Your task to perform on an android device: change the clock display to digital Image 0: 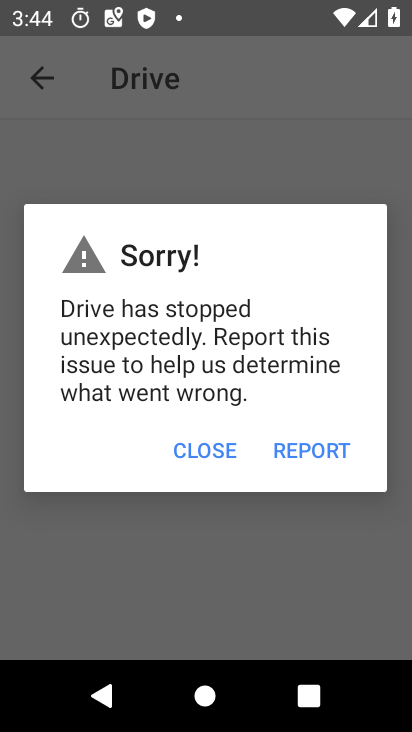
Step 0: press home button
Your task to perform on an android device: change the clock display to digital Image 1: 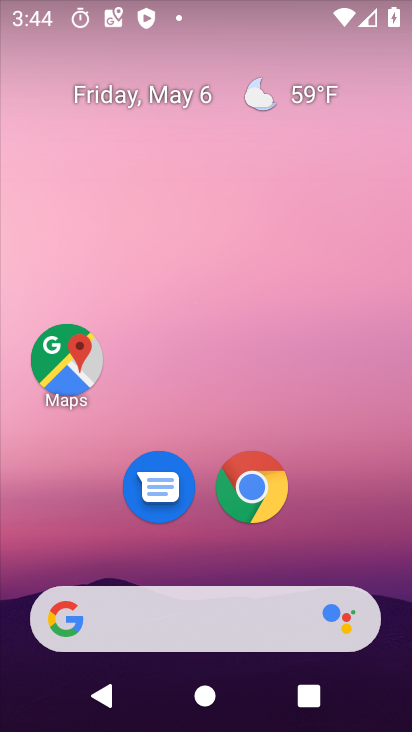
Step 1: drag from (315, 473) to (187, 16)
Your task to perform on an android device: change the clock display to digital Image 2: 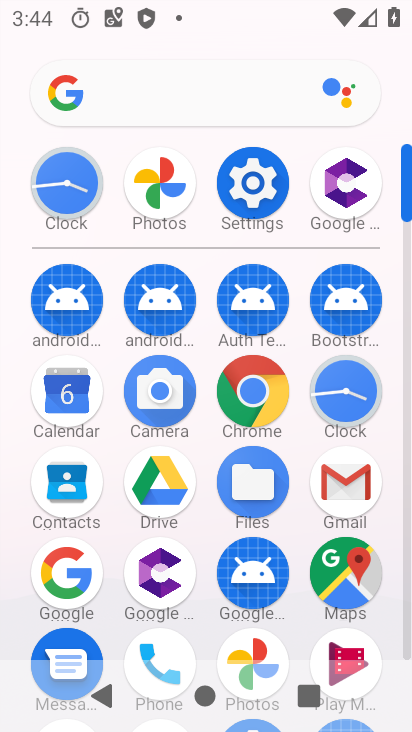
Step 2: click (341, 375)
Your task to perform on an android device: change the clock display to digital Image 3: 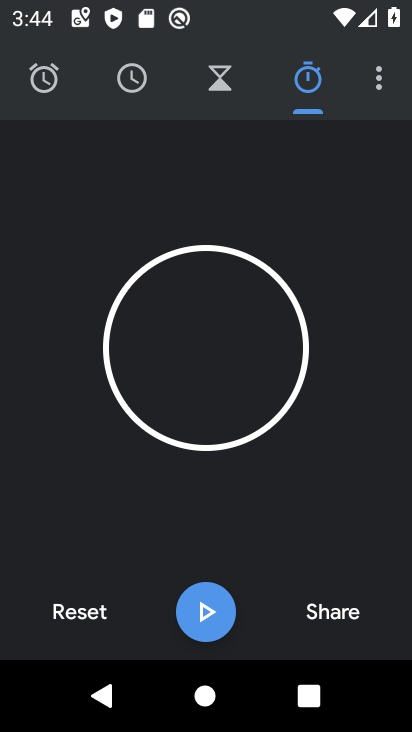
Step 3: click (380, 72)
Your task to perform on an android device: change the clock display to digital Image 4: 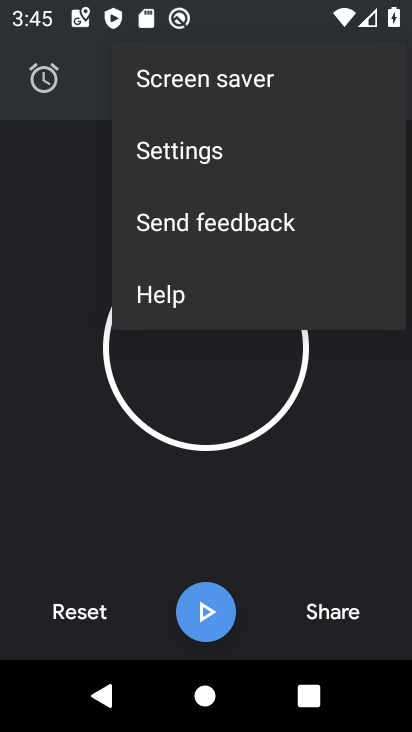
Step 4: click (204, 146)
Your task to perform on an android device: change the clock display to digital Image 5: 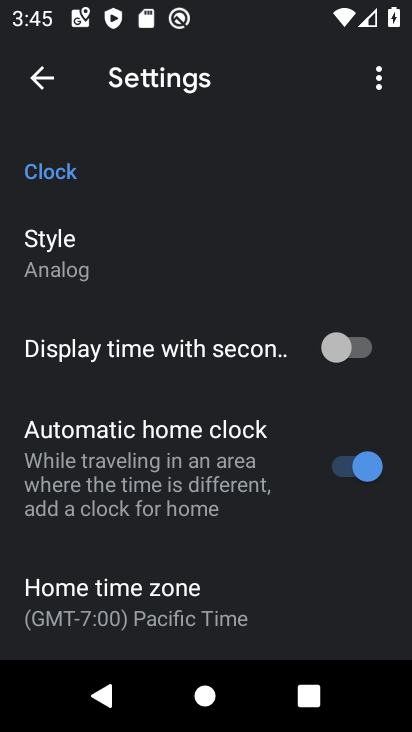
Step 5: click (44, 236)
Your task to perform on an android device: change the clock display to digital Image 6: 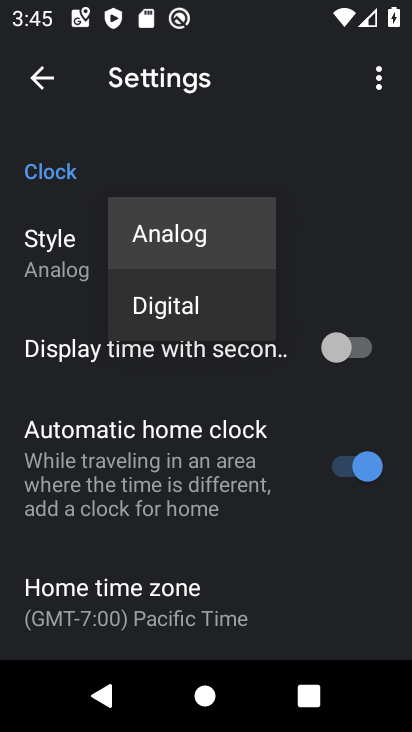
Step 6: click (140, 299)
Your task to perform on an android device: change the clock display to digital Image 7: 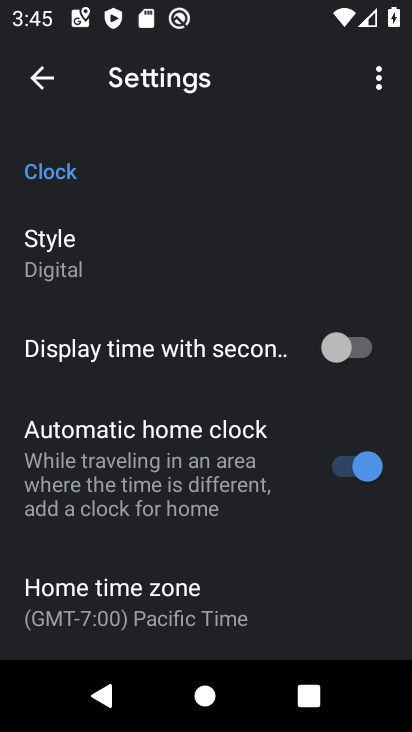
Step 7: task complete